Your task to perform on an android device: Is it going to rain tomorrow? Image 0: 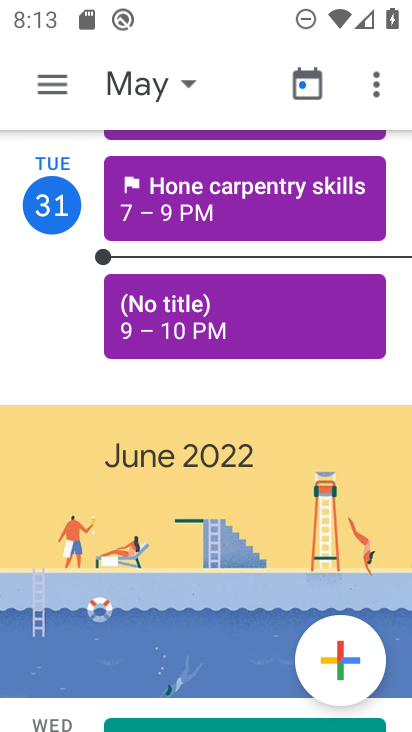
Step 0: press back button
Your task to perform on an android device: Is it going to rain tomorrow? Image 1: 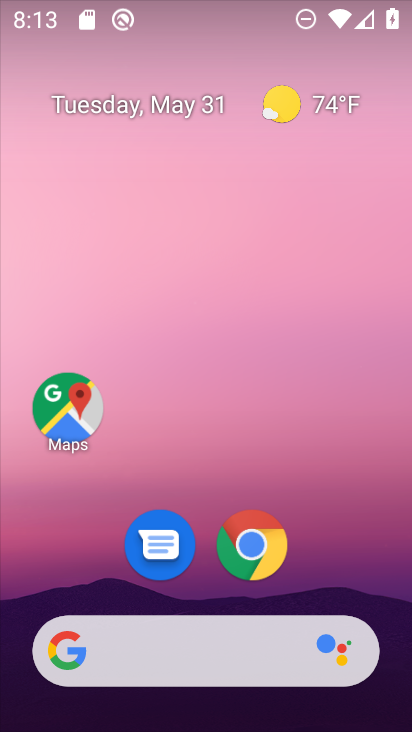
Step 1: drag from (328, 553) to (186, 5)
Your task to perform on an android device: Is it going to rain tomorrow? Image 2: 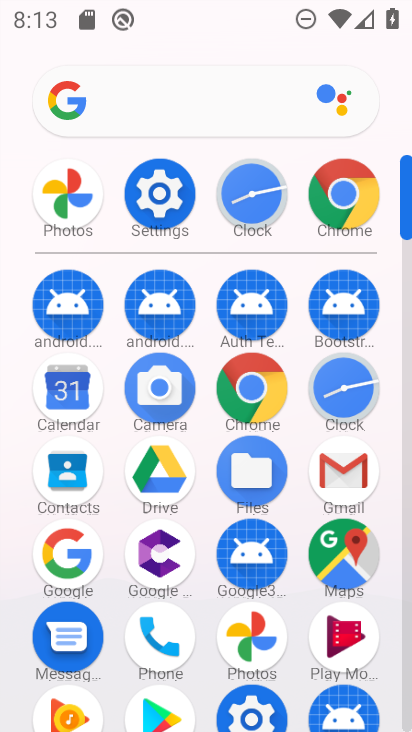
Step 2: drag from (20, 486) to (8, 171)
Your task to perform on an android device: Is it going to rain tomorrow? Image 3: 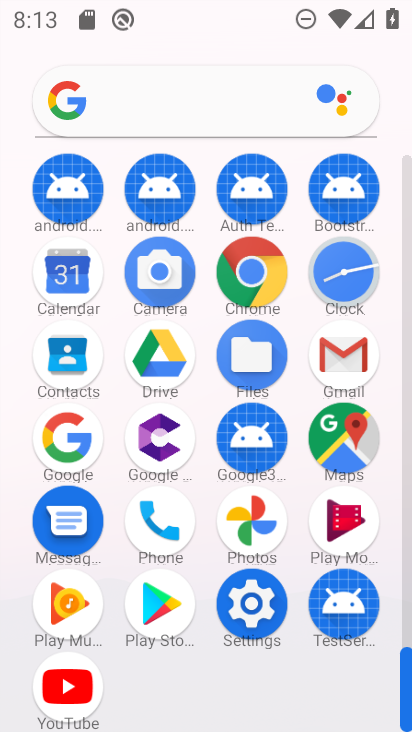
Step 3: click (251, 263)
Your task to perform on an android device: Is it going to rain tomorrow? Image 4: 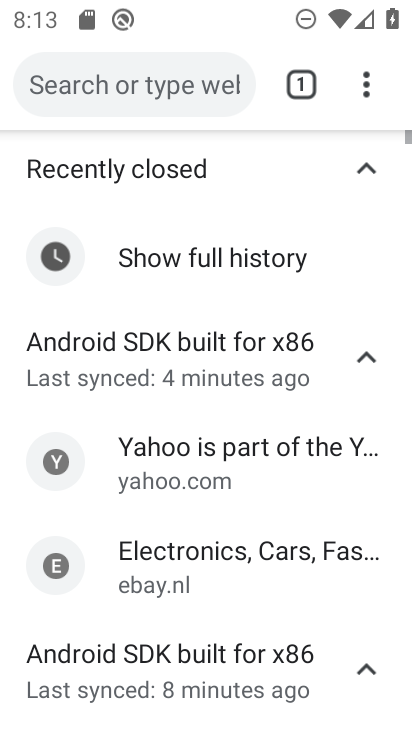
Step 4: click (191, 79)
Your task to perform on an android device: Is it going to rain tomorrow? Image 5: 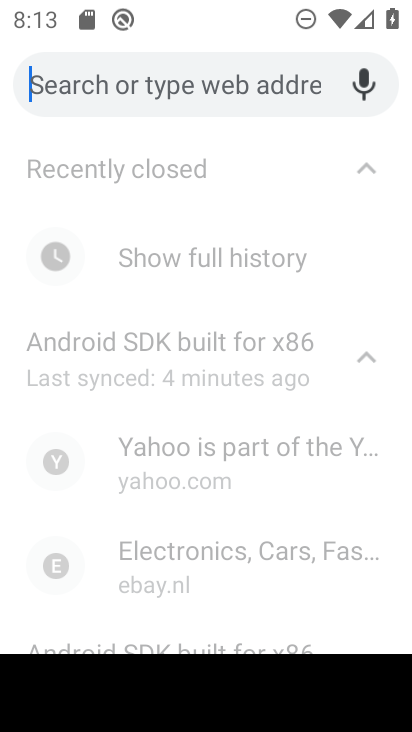
Step 5: type "Is it going to rain tomorrow?"
Your task to perform on an android device: Is it going to rain tomorrow? Image 6: 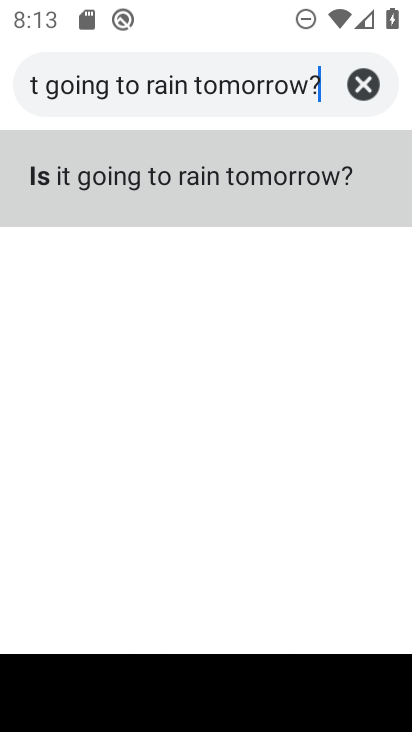
Step 6: click (151, 159)
Your task to perform on an android device: Is it going to rain tomorrow? Image 7: 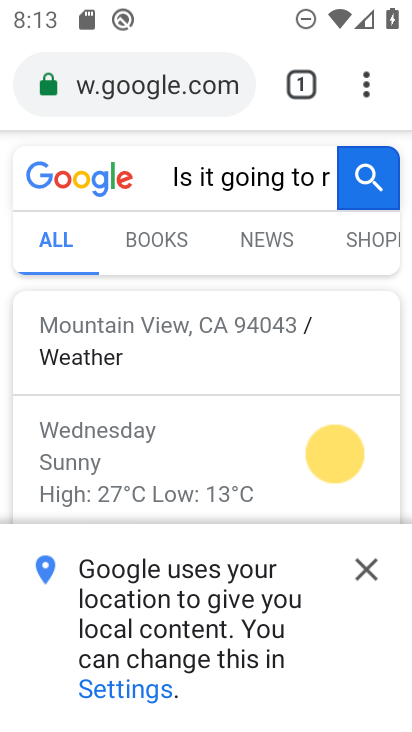
Step 7: click (369, 567)
Your task to perform on an android device: Is it going to rain tomorrow? Image 8: 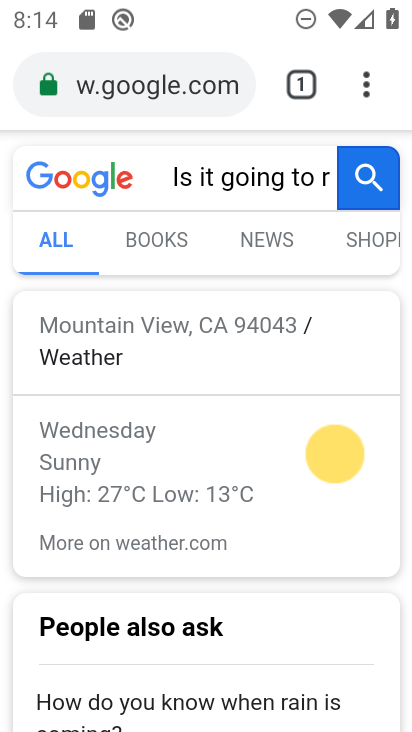
Step 8: task complete